Your task to perform on an android device: Turn on the flashlight Image 0: 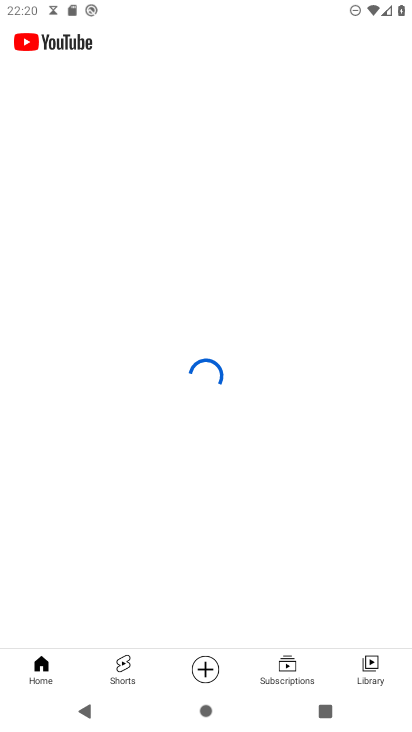
Step 0: press home button
Your task to perform on an android device: Turn on the flashlight Image 1: 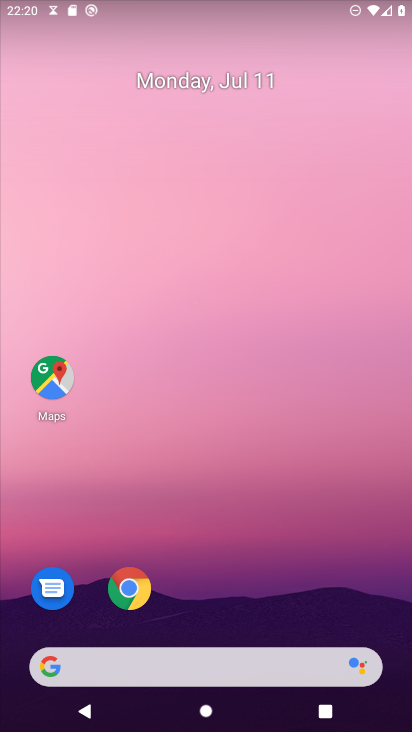
Step 1: task complete